Your task to perform on an android device: find which apps use the phone's location Image 0: 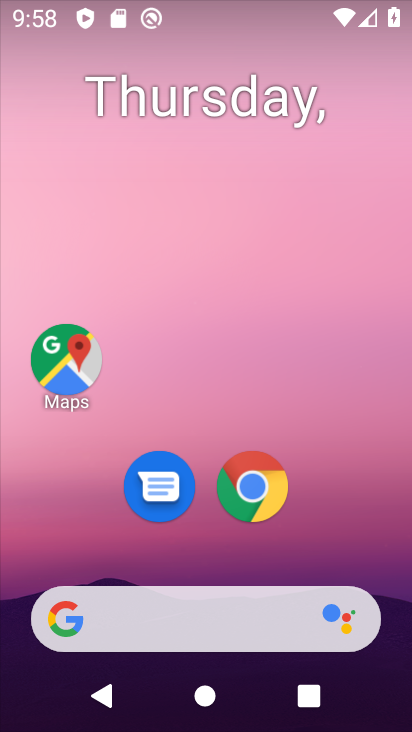
Step 0: drag from (173, 550) to (260, 119)
Your task to perform on an android device: find which apps use the phone's location Image 1: 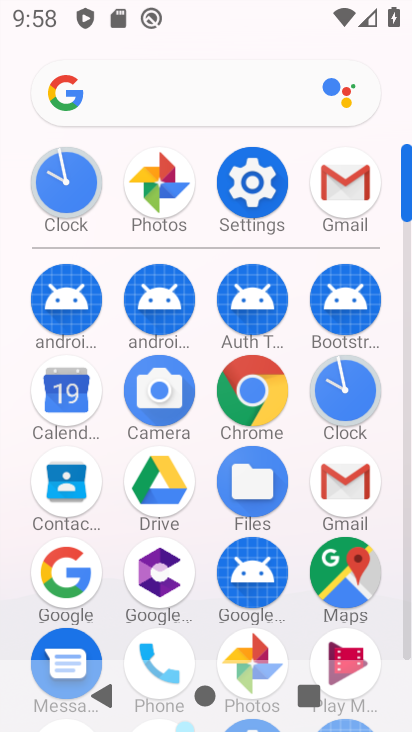
Step 1: click (229, 176)
Your task to perform on an android device: find which apps use the phone's location Image 2: 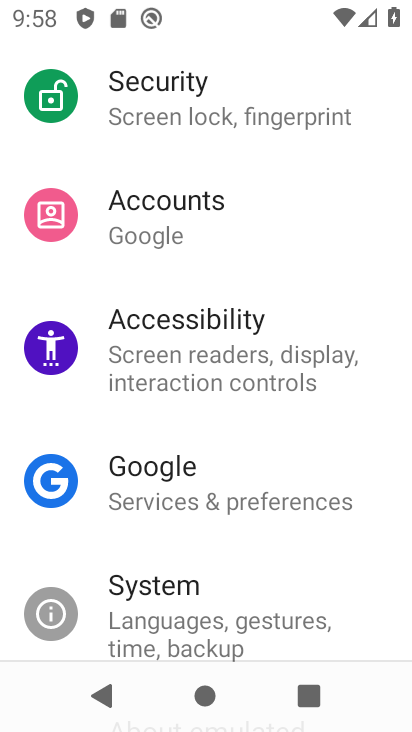
Step 2: drag from (247, 448) to (209, 699)
Your task to perform on an android device: find which apps use the phone's location Image 3: 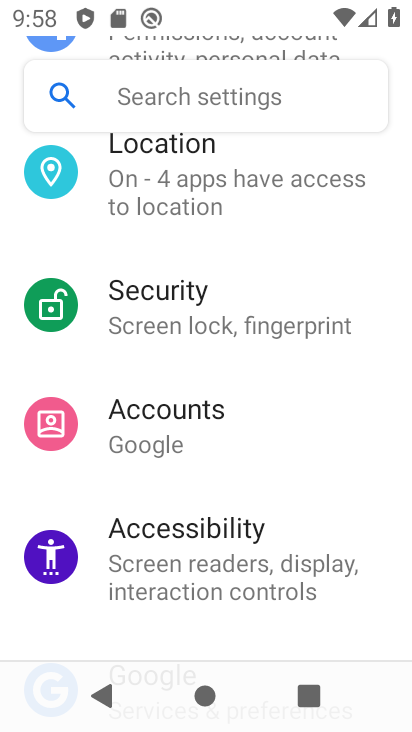
Step 3: click (137, 189)
Your task to perform on an android device: find which apps use the phone's location Image 4: 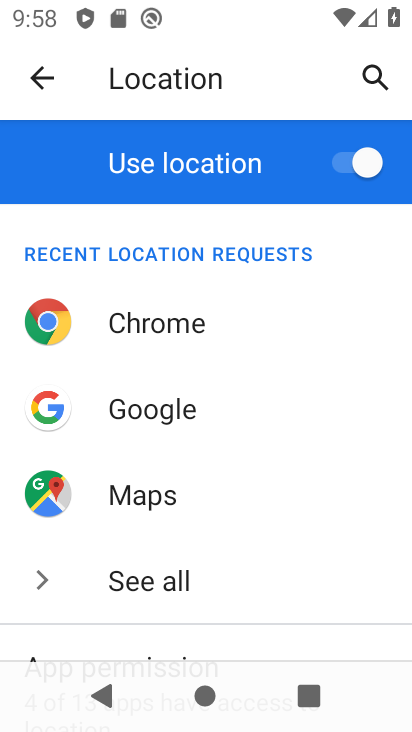
Step 4: drag from (176, 582) to (278, 175)
Your task to perform on an android device: find which apps use the phone's location Image 5: 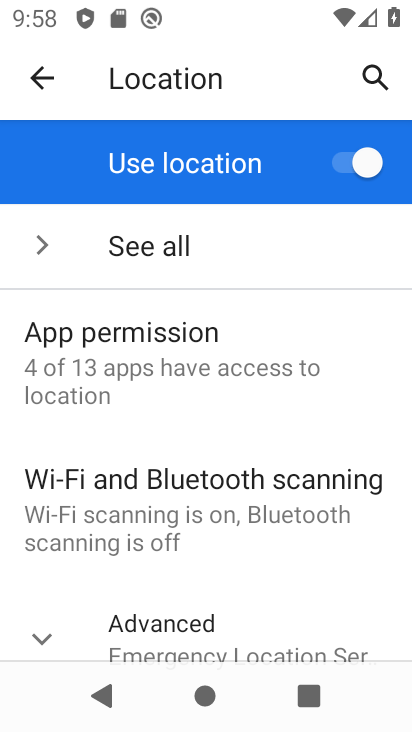
Step 5: click (130, 355)
Your task to perform on an android device: find which apps use the phone's location Image 6: 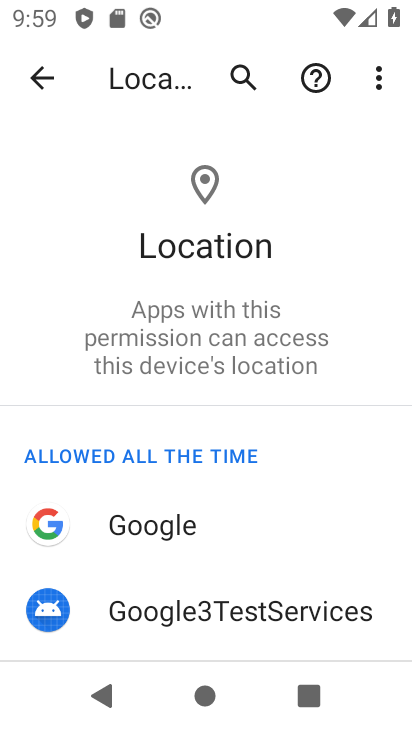
Step 6: task complete